Your task to perform on an android device: Search for logitech g502 on walmart, select the first entry, add it to the cart, then select checkout. Image 0: 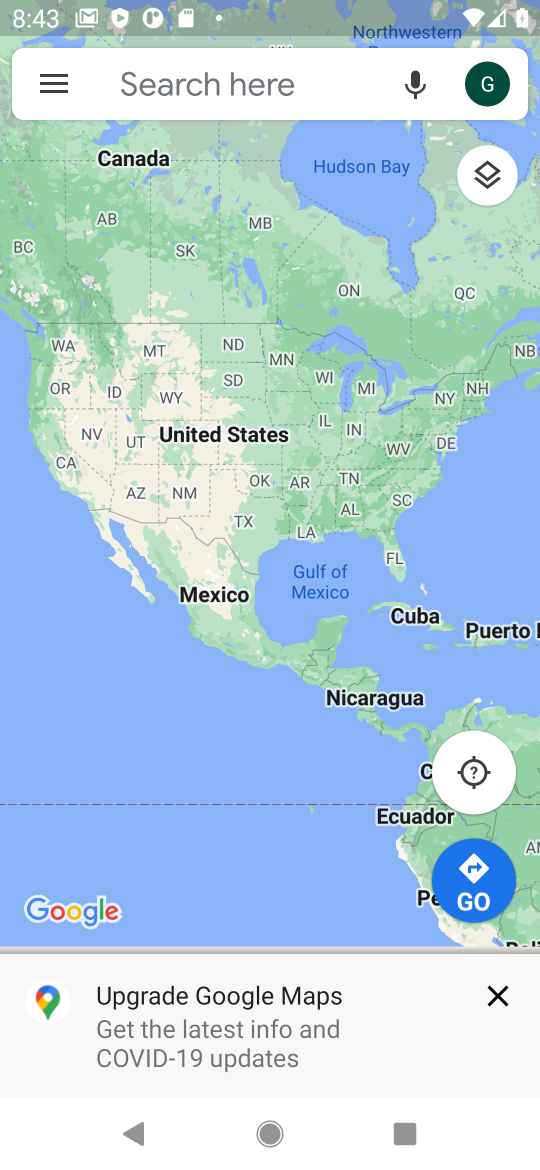
Step 0: press home button
Your task to perform on an android device: Search for logitech g502 on walmart, select the first entry, add it to the cart, then select checkout. Image 1: 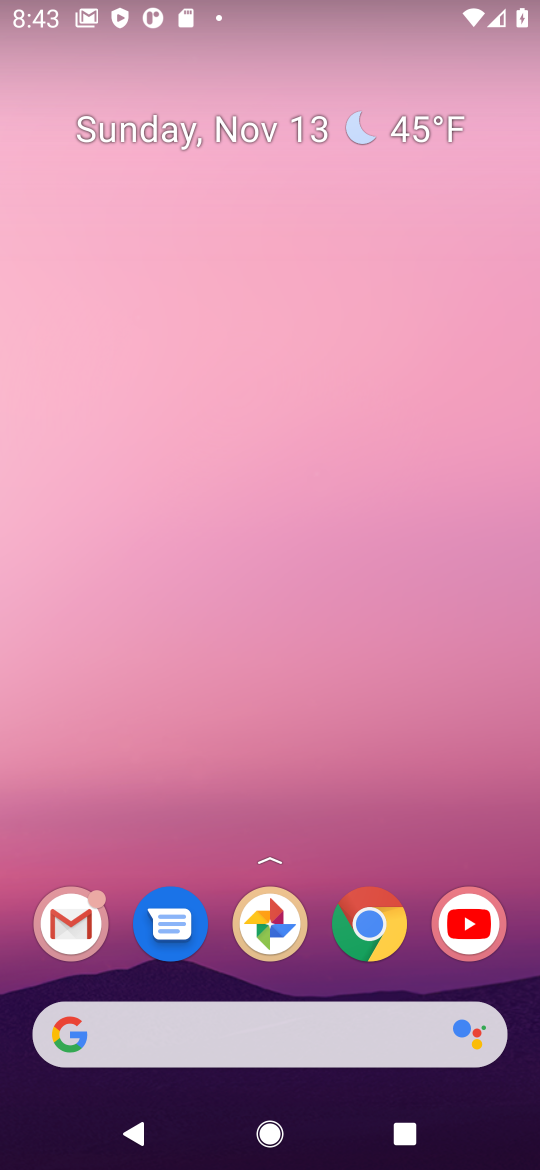
Step 1: click (371, 926)
Your task to perform on an android device: Search for logitech g502 on walmart, select the first entry, add it to the cart, then select checkout. Image 2: 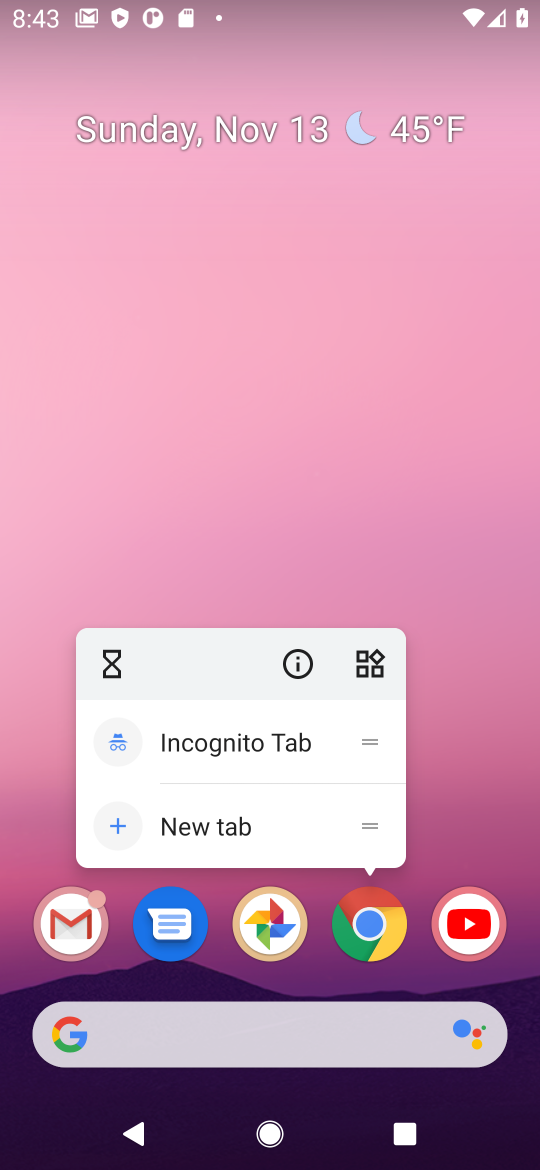
Step 2: click (371, 926)
Your task to perform on an android device: Search for logitech g502 on walmart, select the first entry, add it to the cart, then select checkout. Image 3: 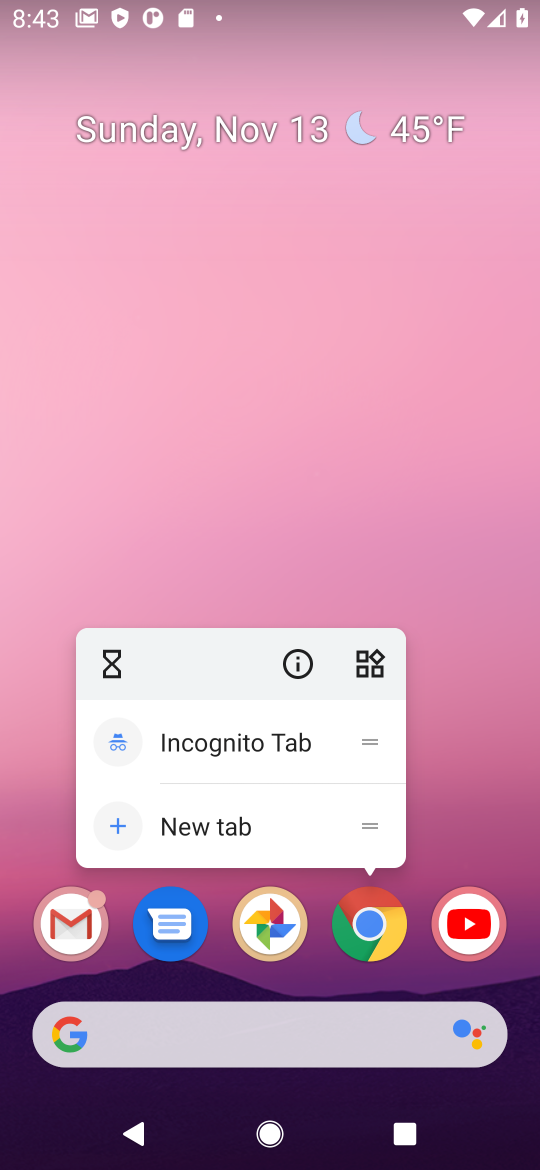
Step 3: click (371, 929)
Your task to perform on an android device: Search for logitech g502 on walmart, select the first entry, add it to the cart, then select checkout. Image 4: 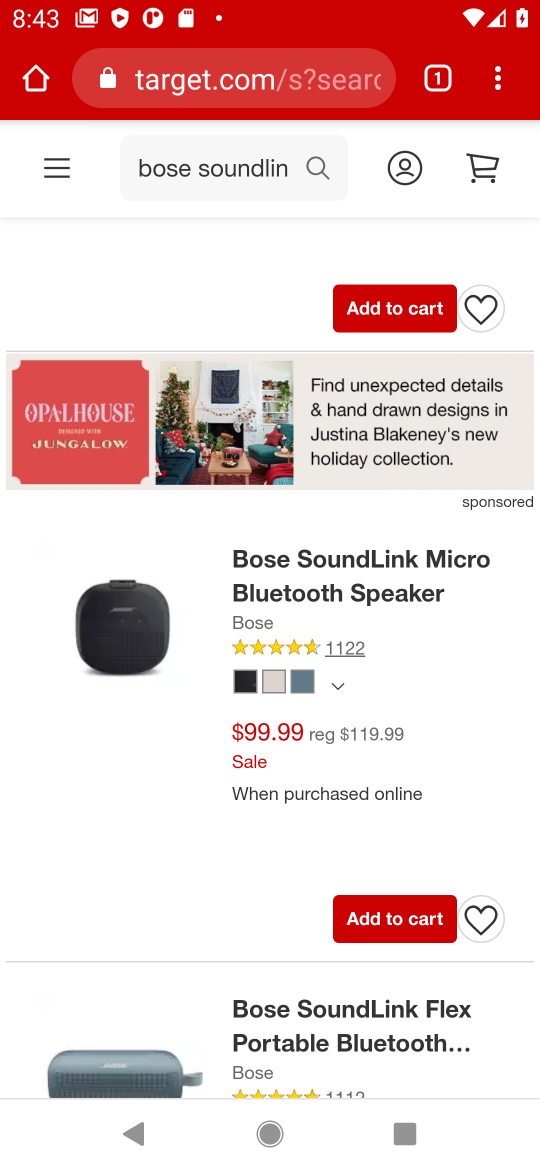
Step 4: click (297, 87)
Your task to perform on an android device: Search for logitech g502 on walmart, select the first entry, add it to the cart, then select checkout. Image 5: 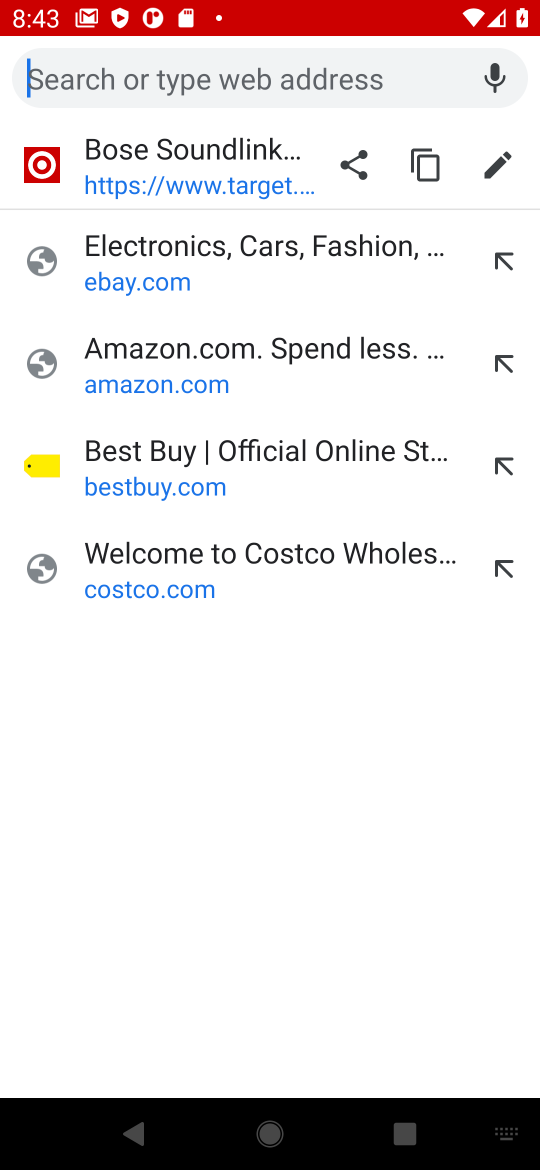
Step 5: type " walmart"
Your task to perform on an android device: Search for logitech g502 on walmart, select the first entry, add it to the cart, then select checkout. Image 6: 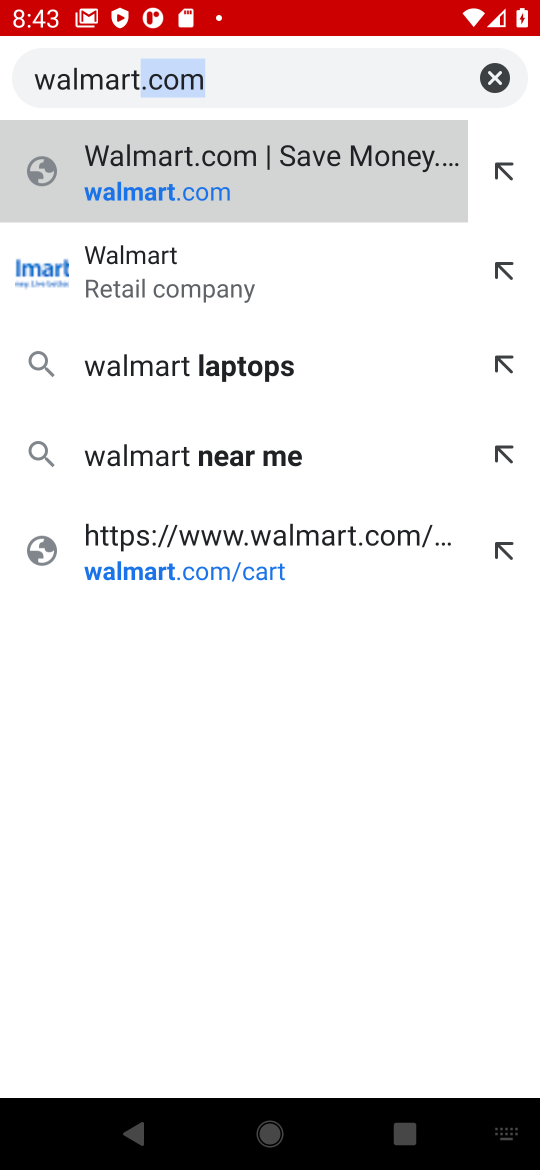
Step 6: press enter
Your task to perform on an android device: Search for logitech g502 on walmart, select the first entry, add it to the cart, then select checkout. Image 7: 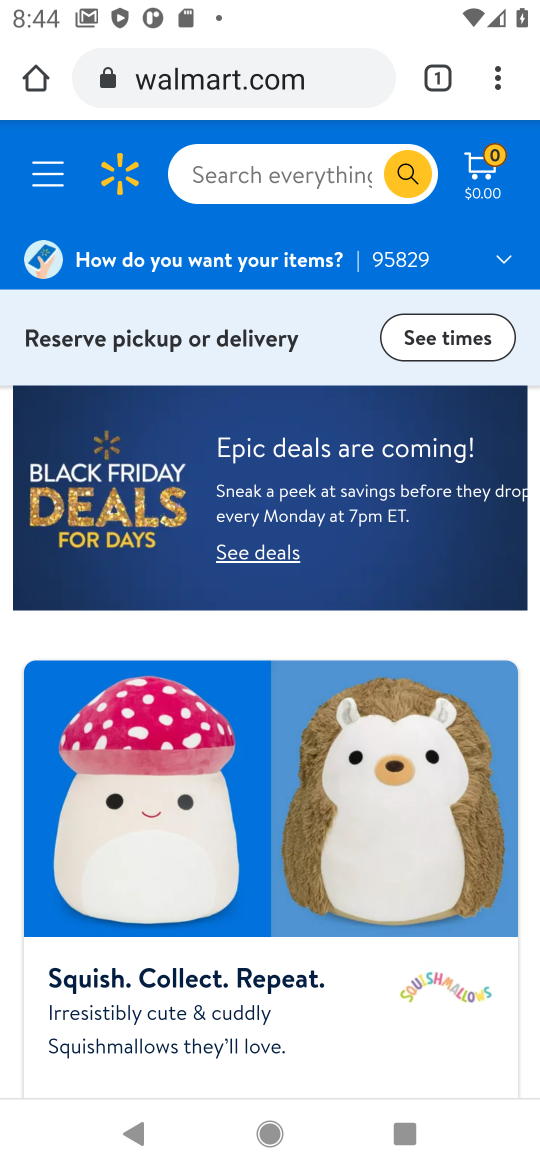
Step 7: click (292, 172)
Your task to perform on an android device: Search for logitech g502 on walmart, select the first entry, add it to the cart, then select checkout. Image 8: 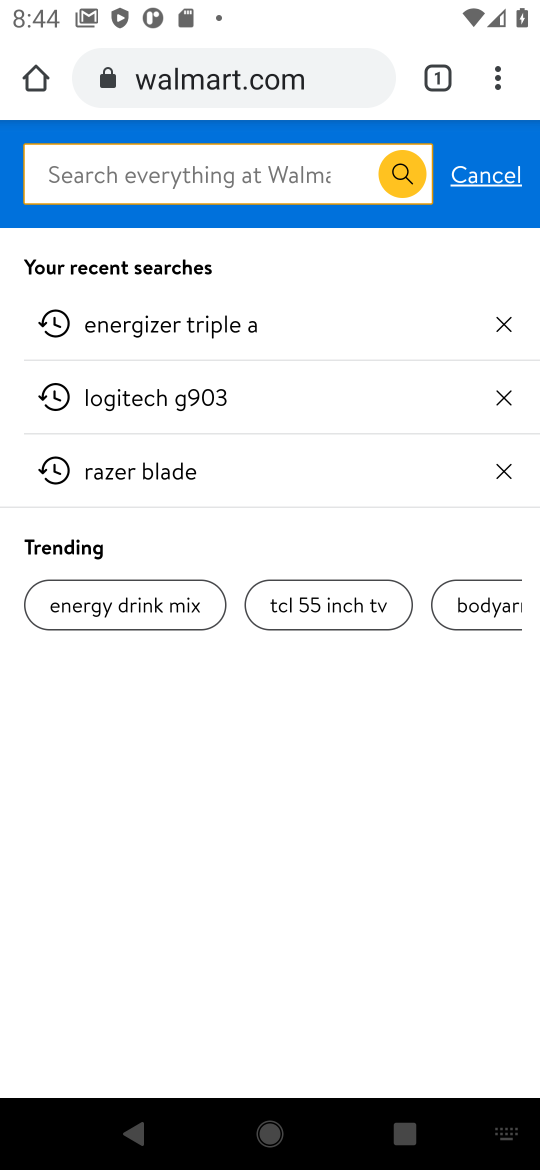
Step 8: type "logitech g502"
Your task to perform on an android device: Search for logitech g502 on walmart, select the first entry, add it to the cart, then select checkout. Image 9: 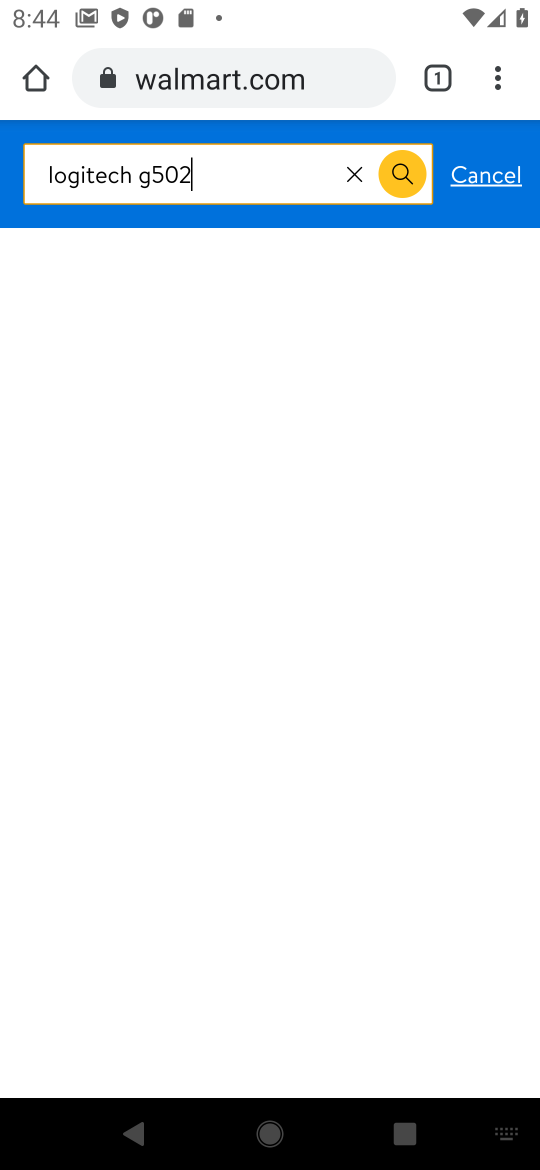
Step 9: press enter
Your task to perform on an android device: Search for logitech g502 on walmart, select the first entry, add it to the cart, then select checkout. Image 10: 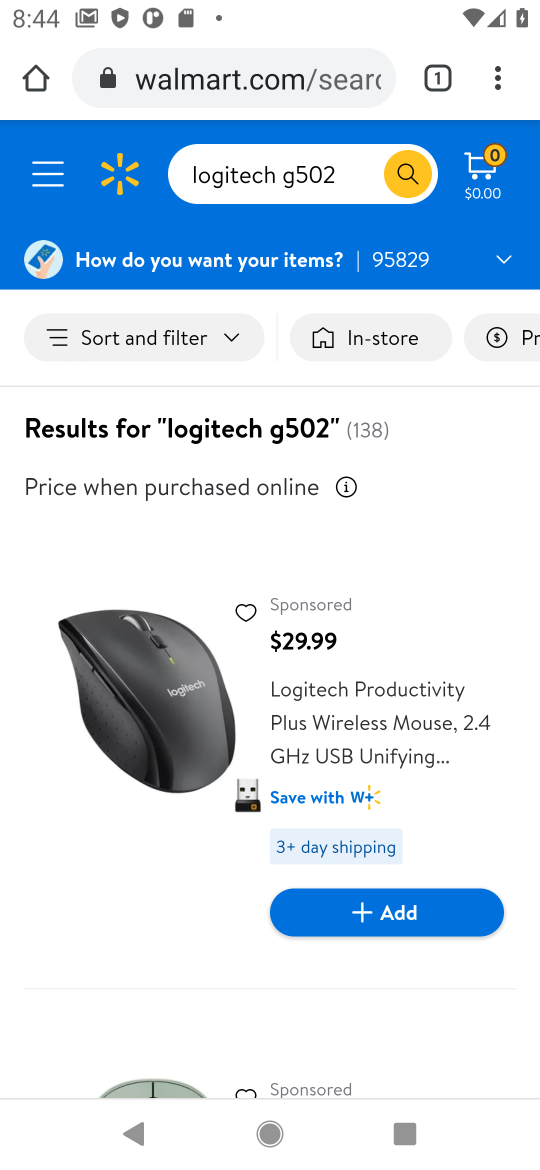
Step 10: task complete